Your task to perform on an android device: Open wifi settings Image 0: 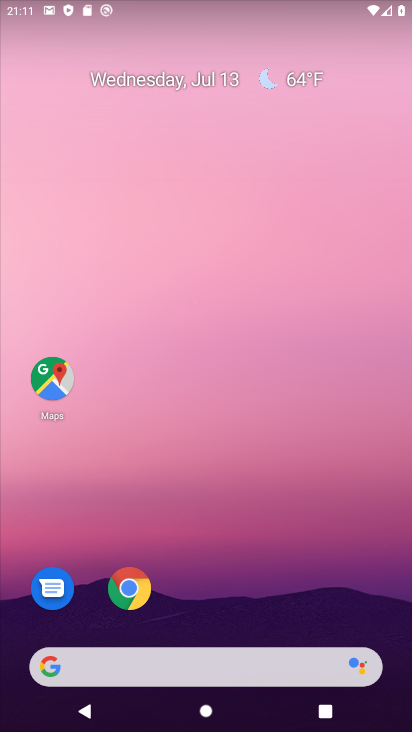
Step 0: drag from (90, 5) to (102, 578)
Your task to perform on an android device: Open wifi settings Image 1: 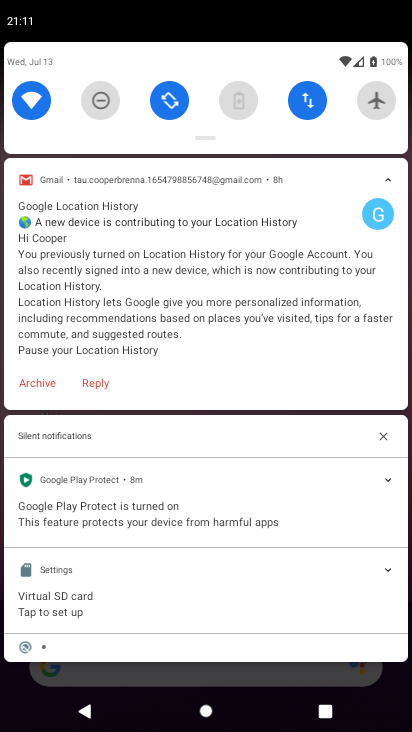
Step 1: click (32, 109)
Your task to perform on an android device: Open wifi settings Image 2: 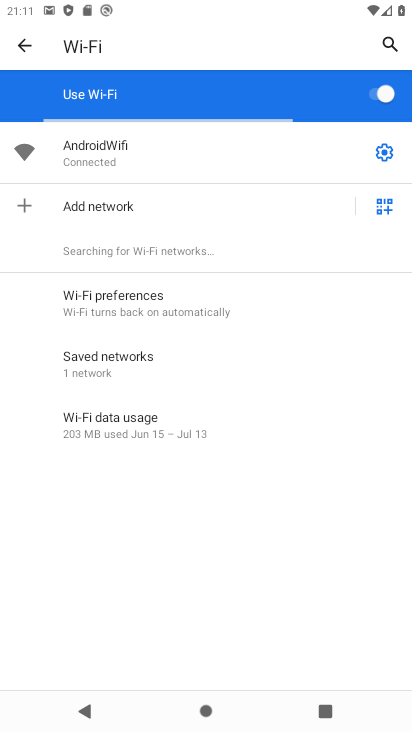
Step 2: task complete